Your task to perform on an android device: change timer sound Image 0: 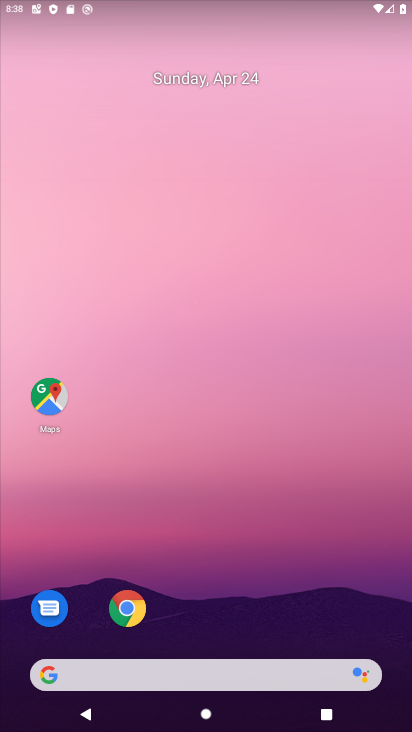
Step 0: drag from (288, 712) to (291, 172)
Your task to perform on an android device: change timer sound Image 1: 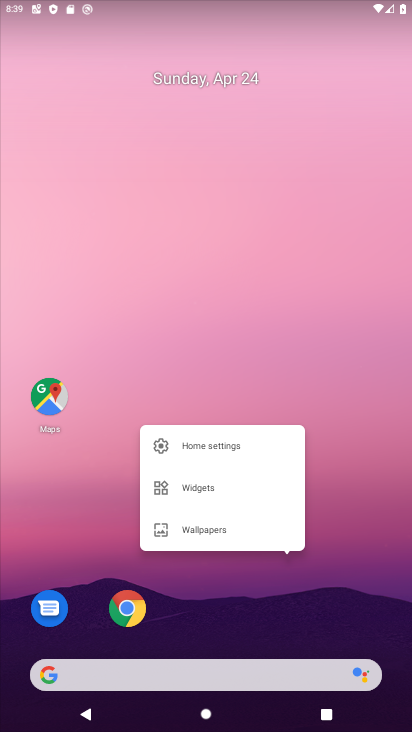
Step 1: click (277, 182)
Your task to perform on an android device: change timer sound Image 2: 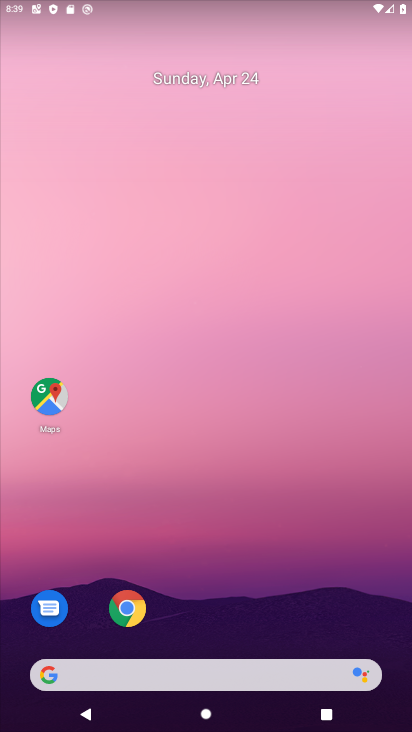
Step 2: drag from (227, 642) to (253, 84)
Your task to perform on an android device: change timer sound Image 3: 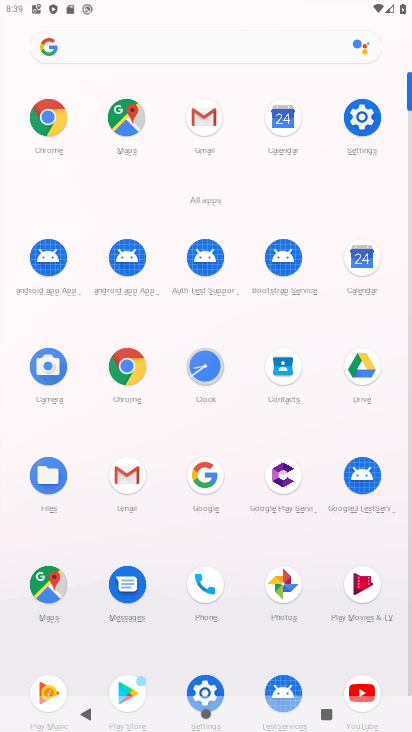
Step 3: click (202, 364)
Your task to perform on an android device: change timer sound Image 4: 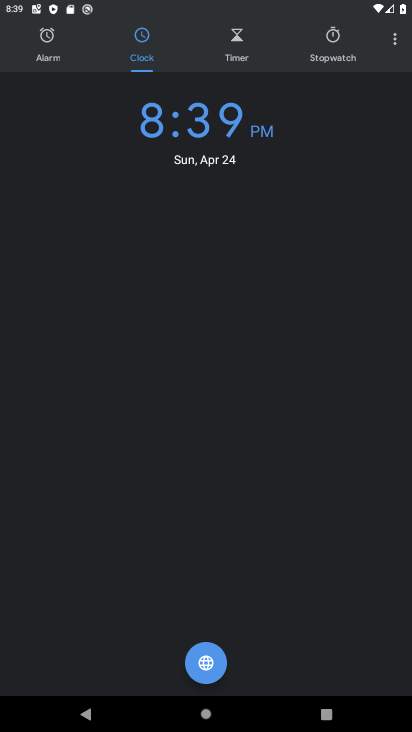
Step 4: click (392, 29)
Your task to perform on an android device: change timer sound Image 5: 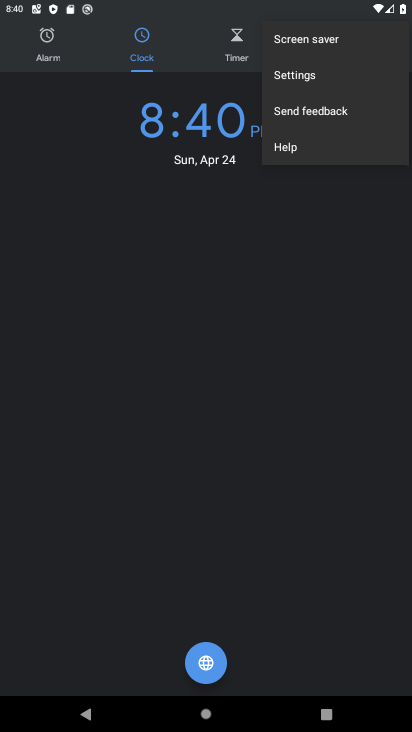
Step 5: click (319, 72)
Your task to perform on an android device: change timer sound Image 6: 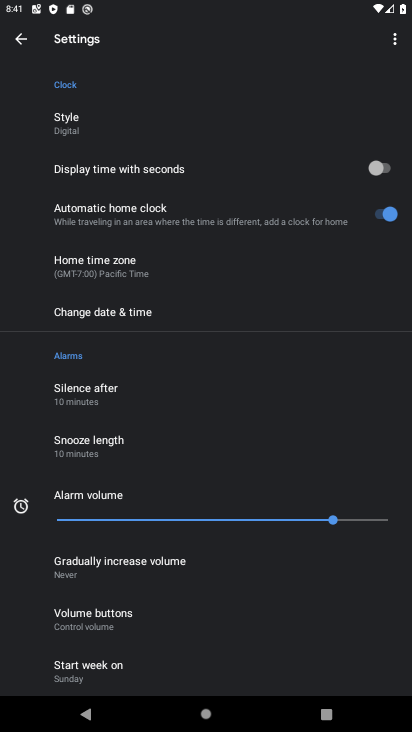
Step 6: drag from (213, 611) to (291, 389)
Your task to perform on an android device: change timer sound Image 7: 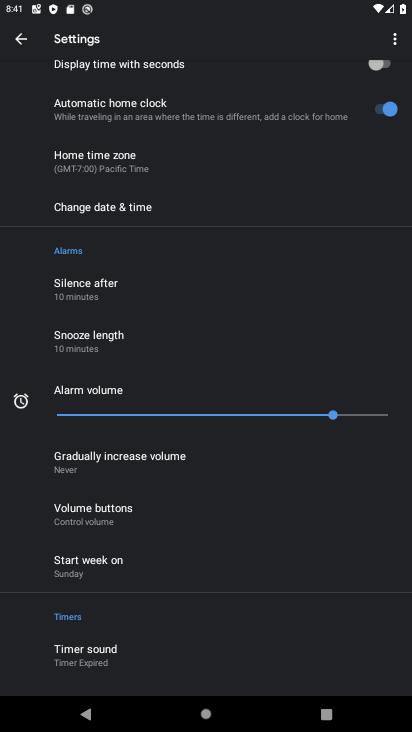
Step 7: drag from (187, 511) to (266, 230)
Your task to perform on an android device: change timer sound Image 8: 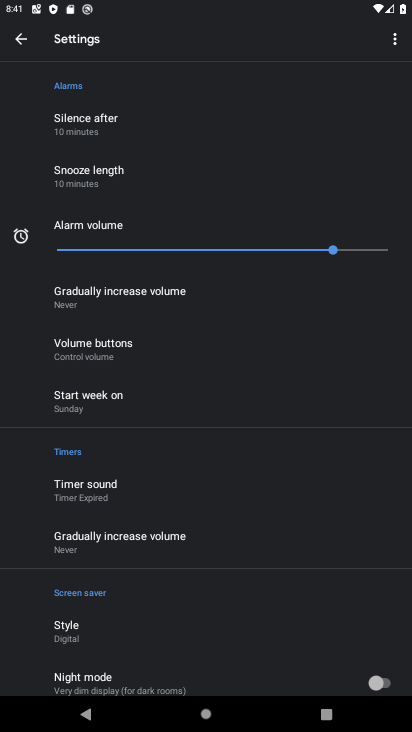
Step 8: click (154, 488)
Your task to perform on an android device: change timer sound Image 9: 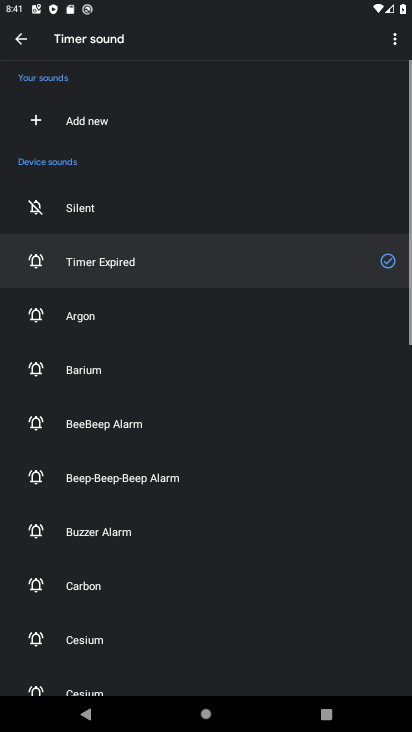
Step 9: click (134, 558)
Your task to perform on an android device: change timer sound Image 10: 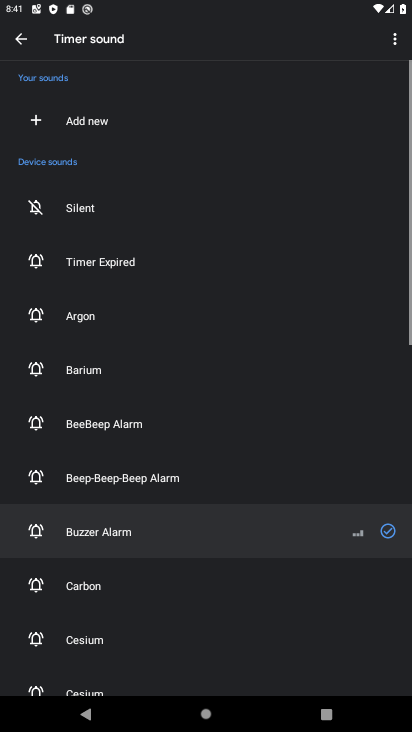
Step 10: task complete